Your task to perform on an android device: Show me popular games on the Play Store Image 0: 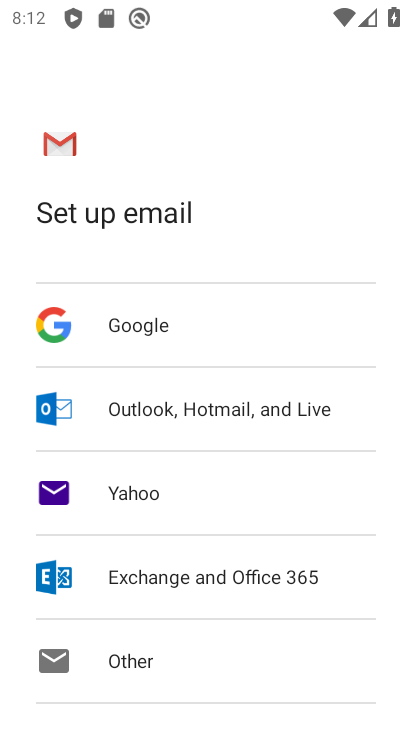
Step 0: press home button
Your task to perform on an android device: Show me popular games on the Play Store Image 1: 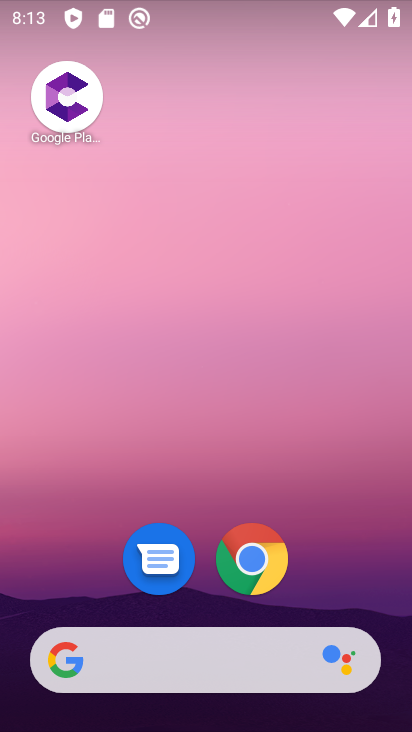
Step 1: drag from (299, 548) to (310, 96)
Your task to perform on an android device: Show me popular games on the Play Store Image 2: 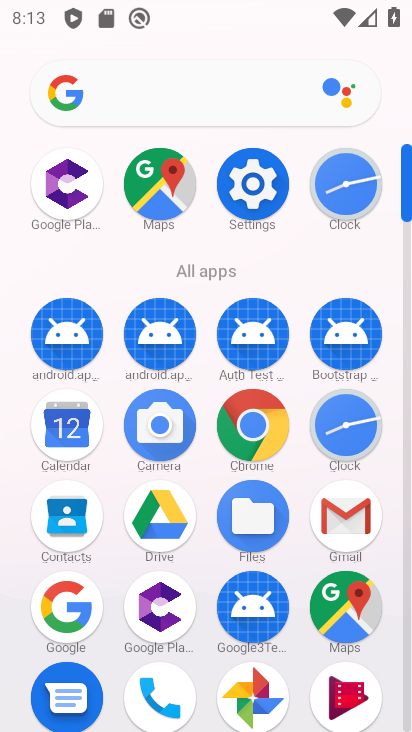
Step 2: drag from (111, 675) to (177, 171)
Your task to perform on an android device: Show me popular games on the Play Store Image 3: 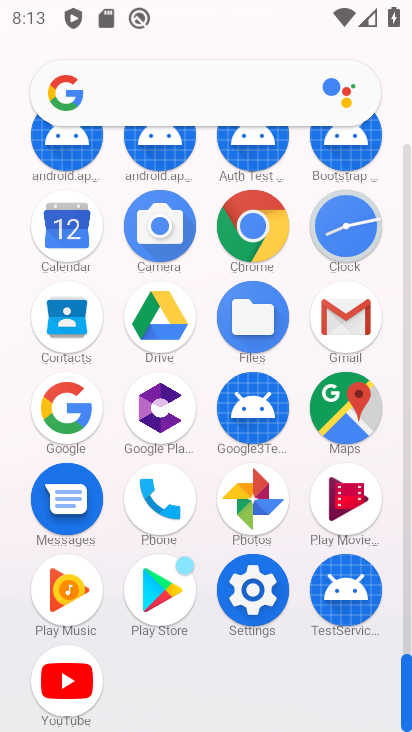
Step 3: click (149, 600)
Your task to perform on an android device: Show me popular games on the Play Store Image 4: 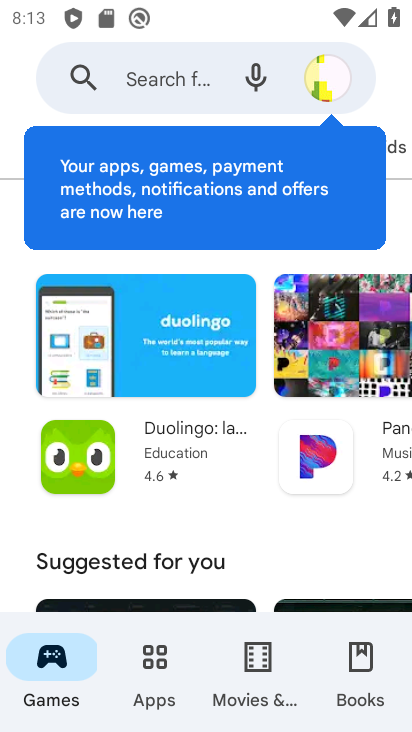
Step 4: drag from (209, 571) to (268, 239)
Your task to perform on an android device: Show me popular games on the Play Store Image 5: 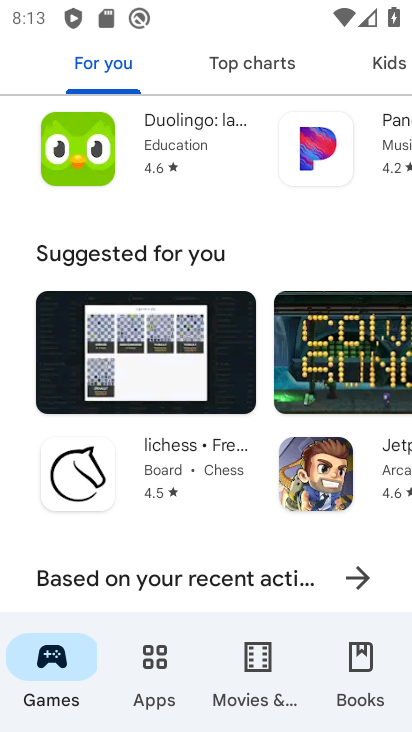
Step 5: drag from (242, 585) to (290, 248)
Your task to perform on an android device: Show me popular games on the Play Store Image 6: 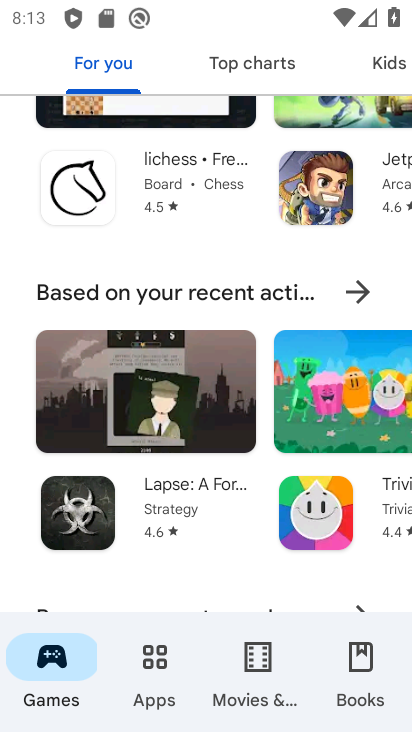
Step 6: drag from (262, 528) to (269, 133)
Your task to perform on an android device: Show me popular games on the Play Store Image 7: 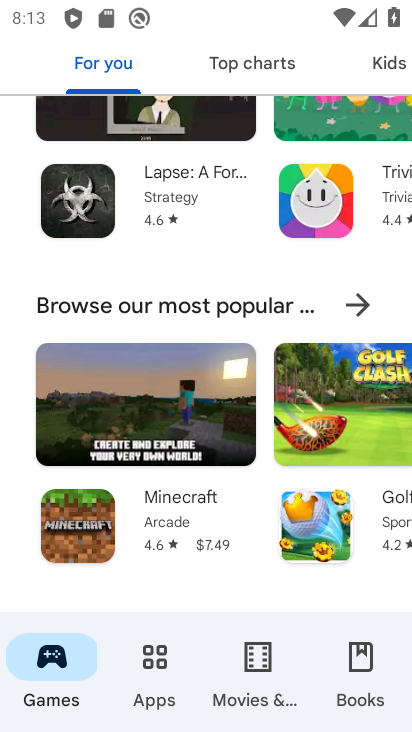
Step 7: click (266, 306)
Your task to perform on an android device: Show me popular games on the Play Store Image 8: 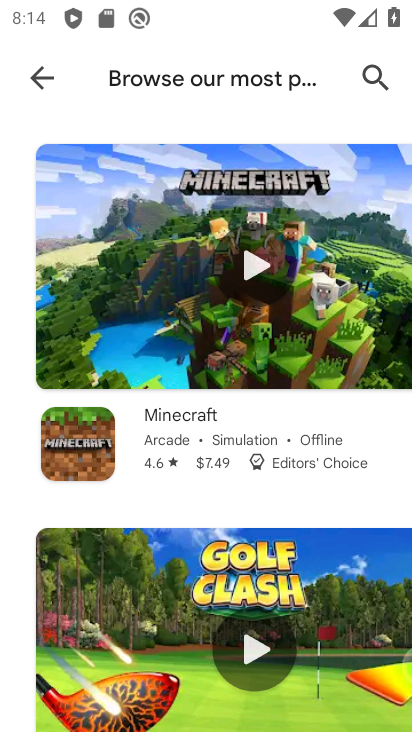
Step 8: task complete